Your task to perform on an android device: turn on airplane mode Image 0: 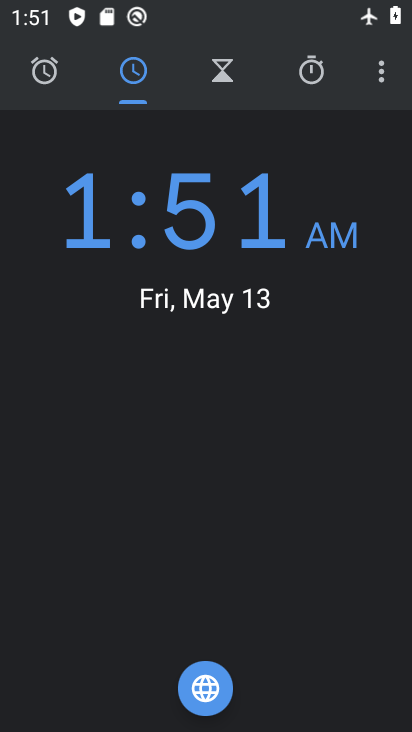
Step 0: drag from (354, 11) to (307, 267)
Your task to perform on an android device: turn on airplane mode Image 1: 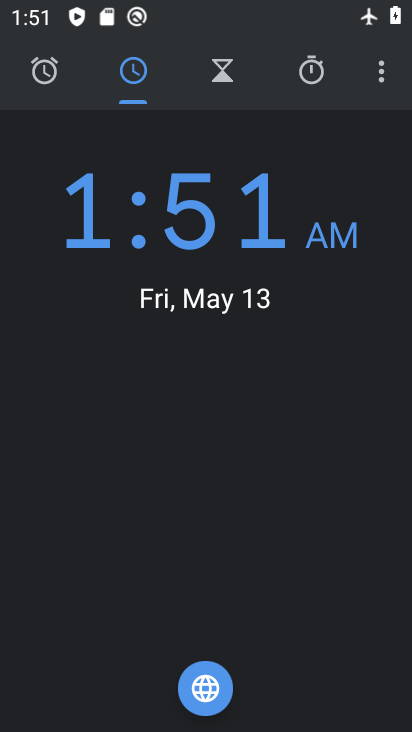
Step 1: task complete